Your task to perform on an android device: empty trash in the gmail app Image 0: 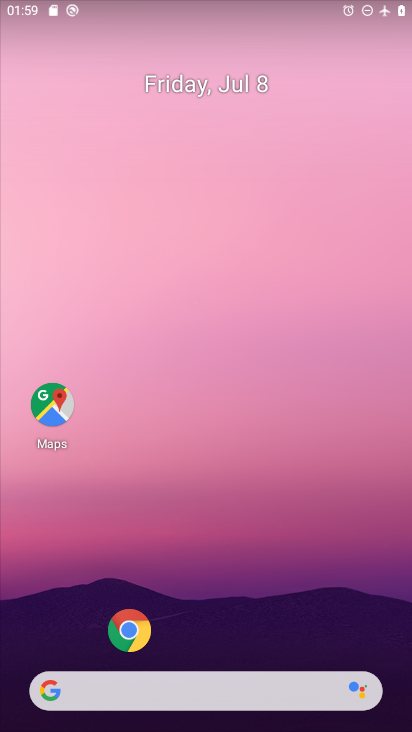
Step 0: drag from (304, 682) to (209, 28)
Your task to perform on an android device: empty trash in the gmail app Image 1: 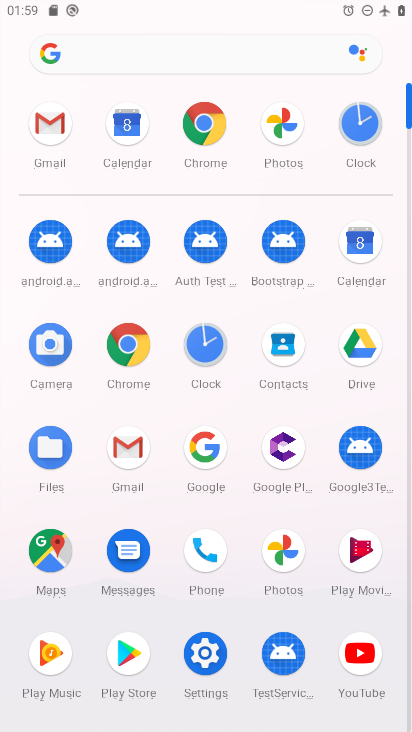
Step 1: click (132, 437)
Your task to perform on an android device: empty trash in the gmail app Image 2: 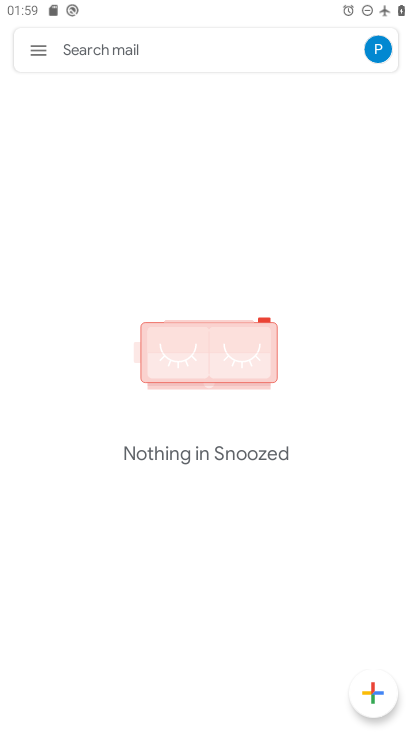
Step 2: click (31, 52)
Your task to perform on an android device: empty trash in the gmail app Image 3: 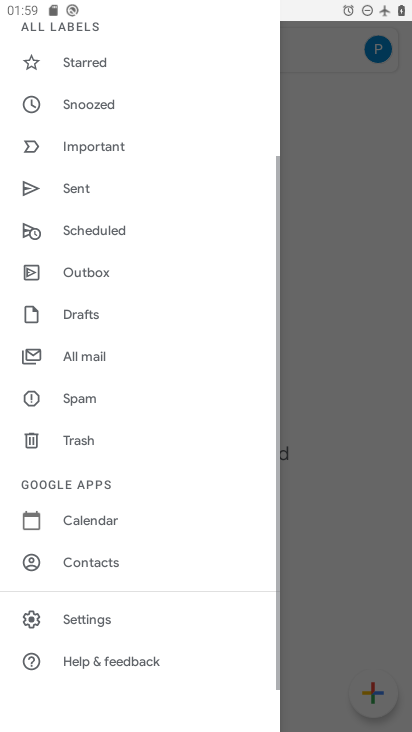
Step 3: click (100, 438)
Your task to perform on an android device: empty trash in the gmail app Image 4: 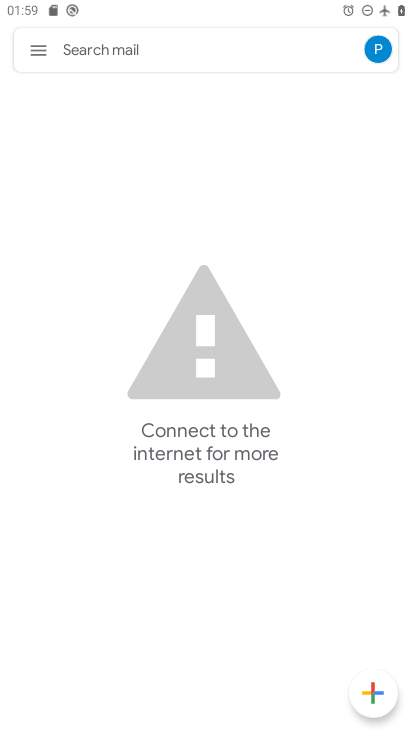
Step 4: task complete